Your task to perform on an android device: set an alarm Image 0: 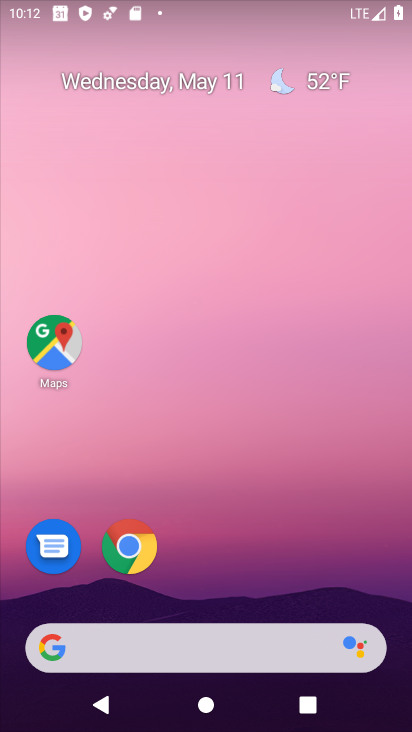
Step 0: drag from (140, 634) to (50, 0)
Your task to perform on an android device: set an alarm Image 1: 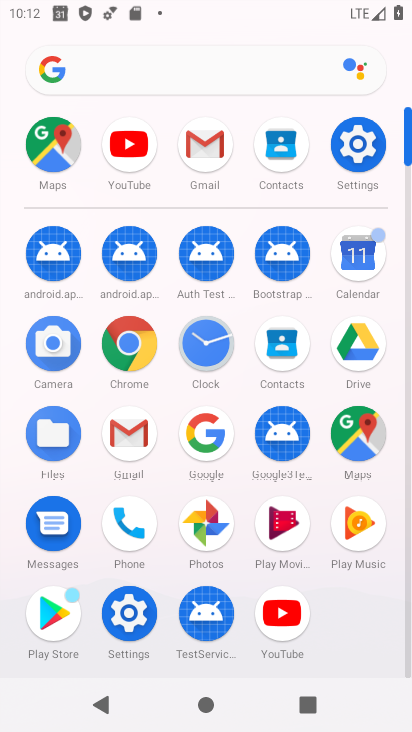
Step 1: click (210, 353)
Your task to perform on an android device: set an alarm Image 2: 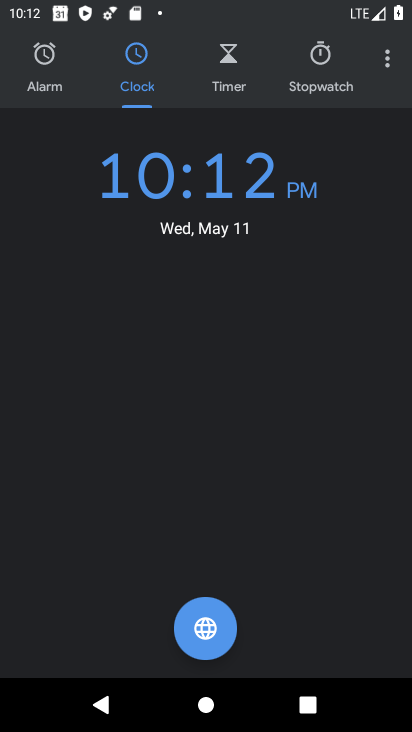
Step 2: click (55, 63)
Your task to perform on an android device: set an alarm Image 3: 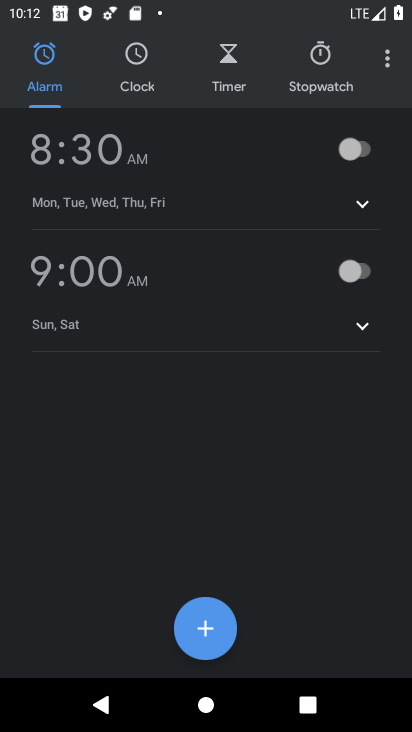
Step 3: click (216, 624)
Your task to perform on an android device: set an alarm Image 4: 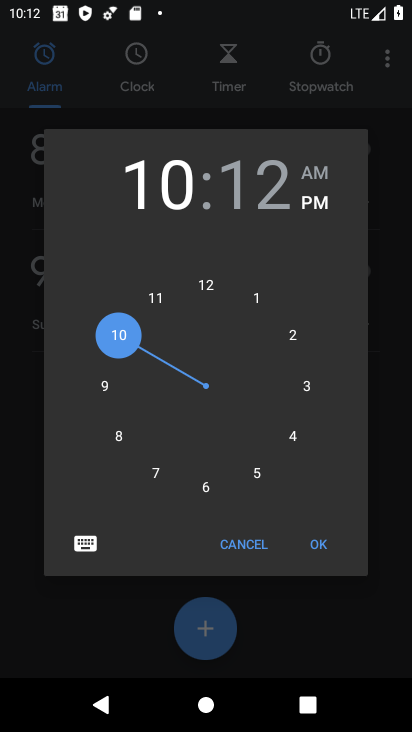
Step 4: click (319, 546)
Your task to perform on an android device: set an alarm Image 5: 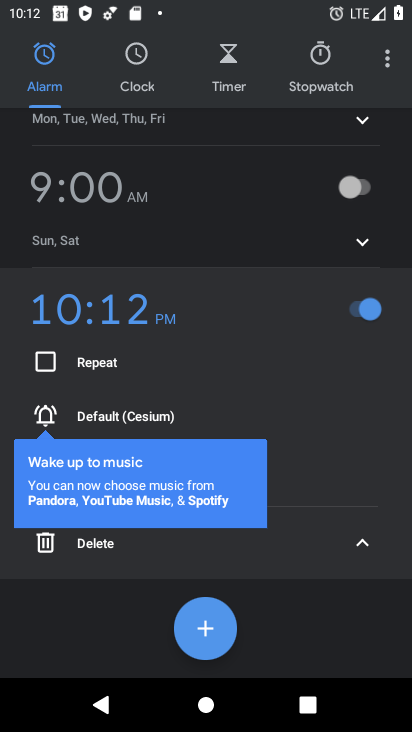
Step 5: task complete